Your task to perform on an android device: manage bookmarks in the chrome app Image 0: 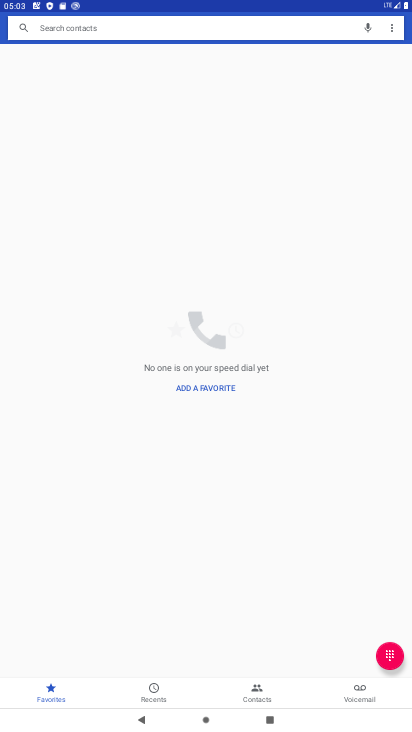
Step 0: press home button
Your task to perform on an android device: manage bookmarks in the chrome app Image 1: 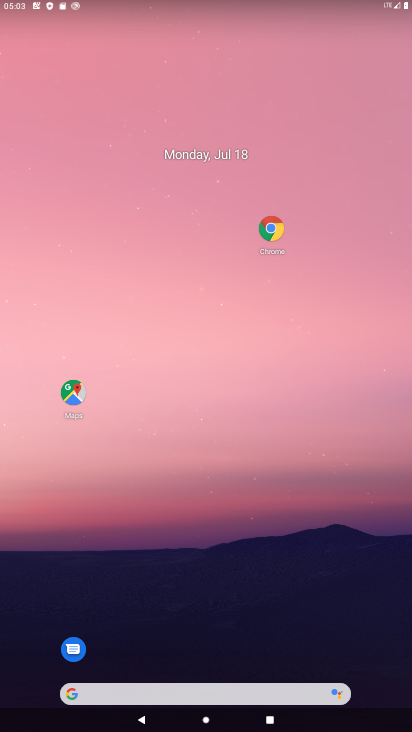
Step 1: drag from (173, 617) to (232, 259)
Your task to perform on an android device: manage bookmarks in the chrome app Image 2: 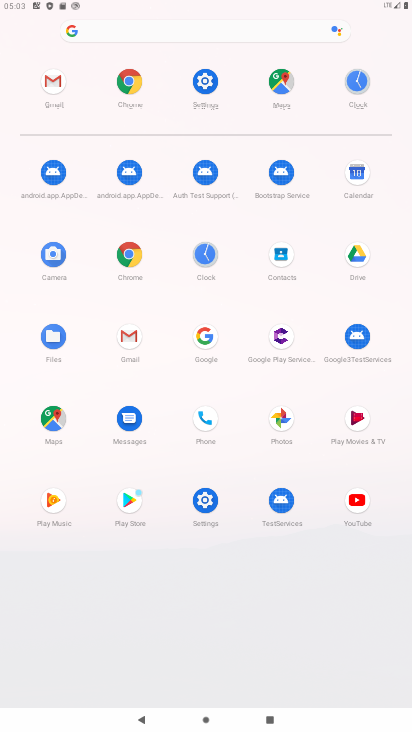
Step 2: click (271, 228)
Your task to perform on an android device: manage bookmarks in the chrome app Image 3: 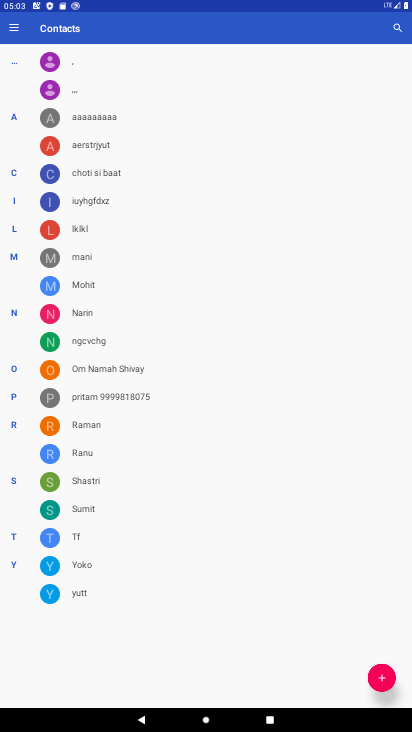
Step 3: press home button
Your task to perform on an android device: manage bookmarks in the chrome app Image 4: 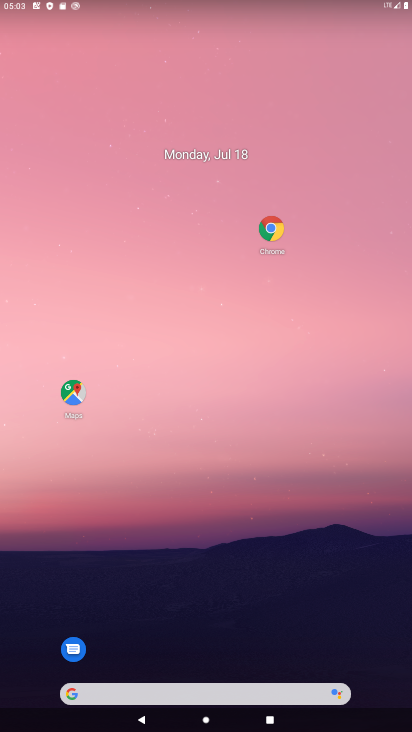
Step 4: click (281, 233)
Your task to perform on an android device: manage bookmarks in the chrome app Image 5: 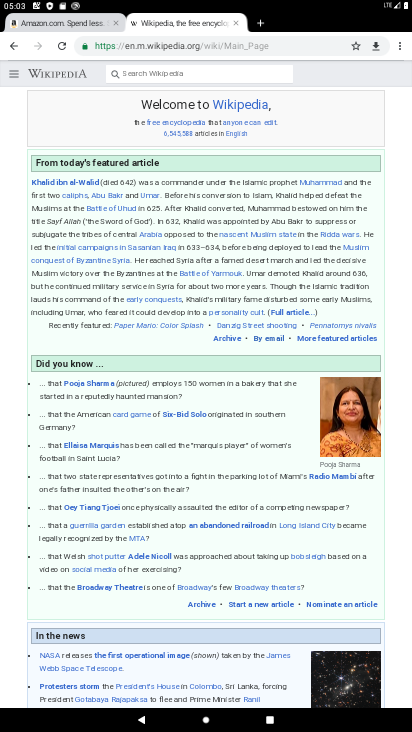
Step 5: click (404, 54)
Your task to perform on an android device: manage bookmarks in the chrome app Image 6: 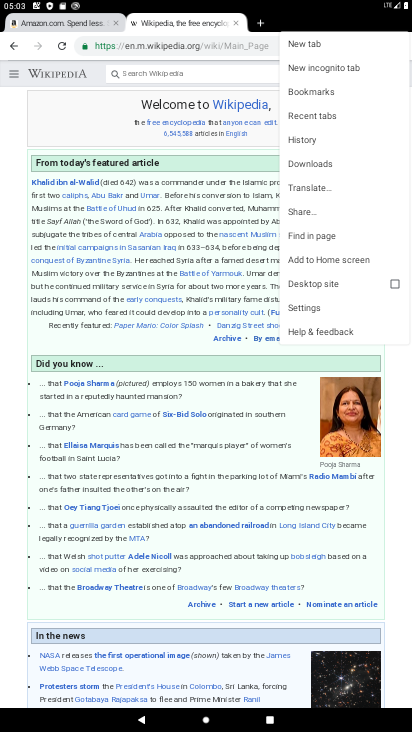
Step 6: click (324, 99)
Your task to perform on an android device: manage bookmarks in the chrome app Image 7: 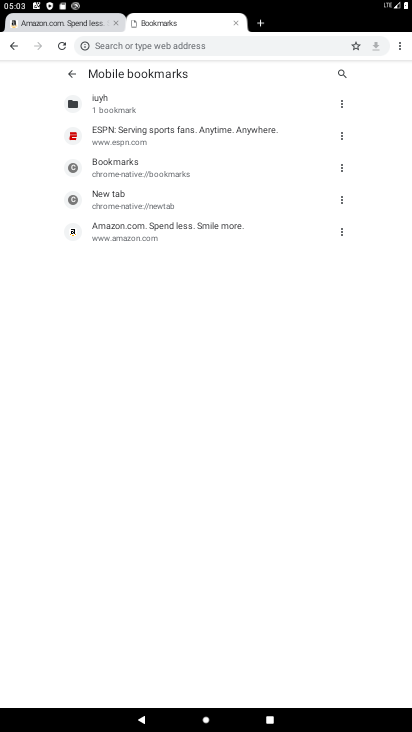
Step 7: click (350, 230)
Your task to perform on an android device: manage bookmarks in the chrome app Image 8: 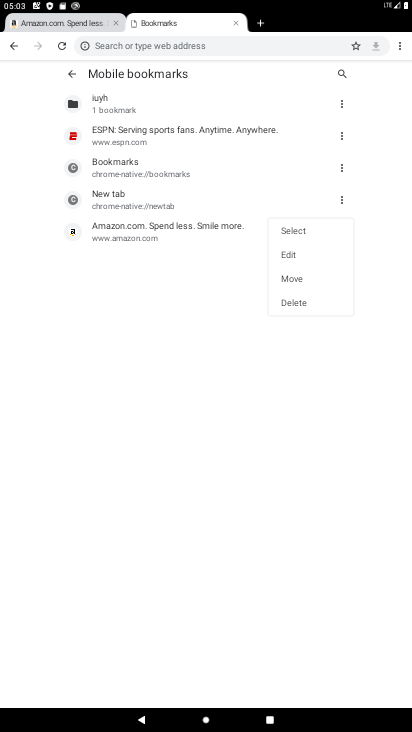
Step 8: click (318, 299)
Your task to perform on an android device: manage bookmarks in the chrome app Image 9: 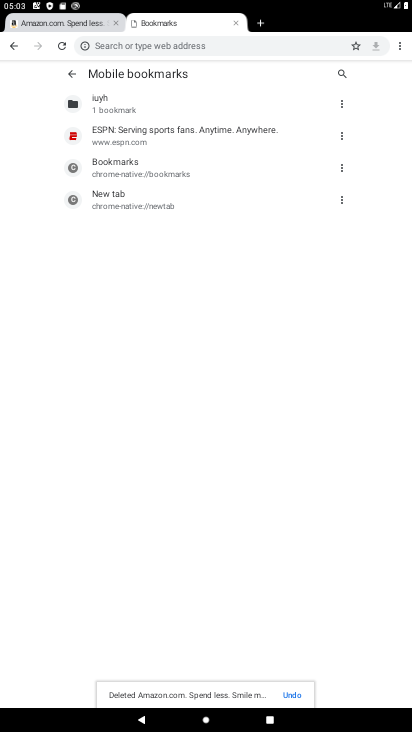
Step 9: task complete